Your task to perform on an android device: Go to Maps Image 0: 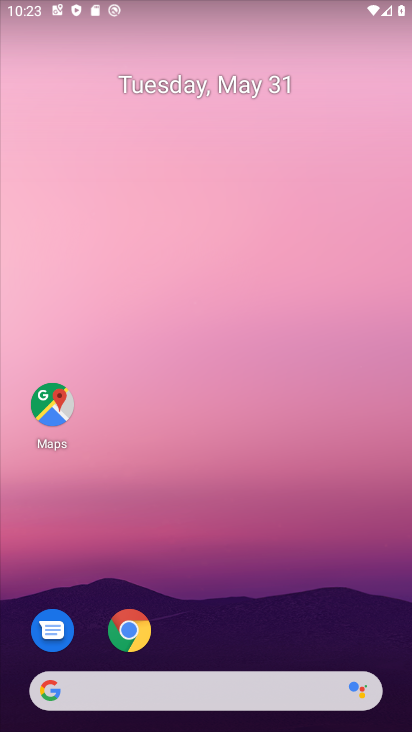
Step 0: drag from (235, 561) to (267, 149)
Your task to perform on an android device: Go to Maps Image 1: 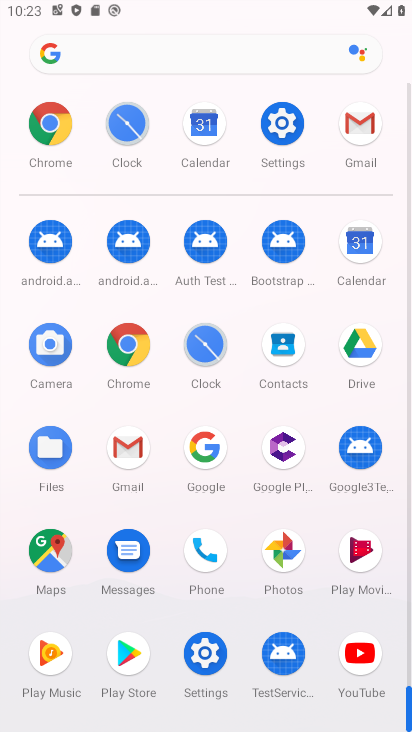
Step 1: click (51, 559)
Your task to perform on an android device: Go to Maps Image 2: 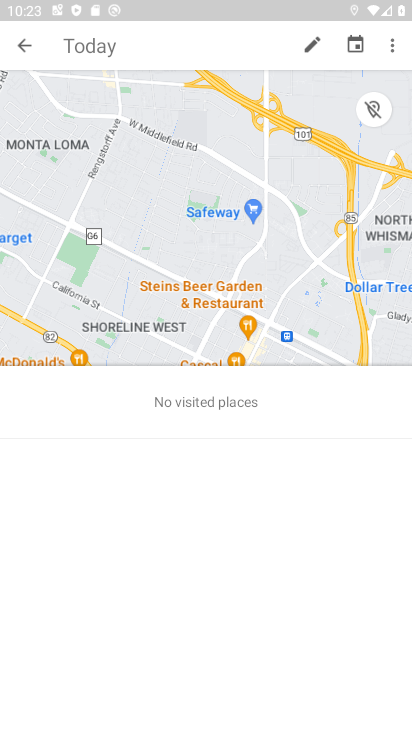
Step 2: task complete